Your task to perform on an android device: toggle notifications settings in the gmail app Image 0: 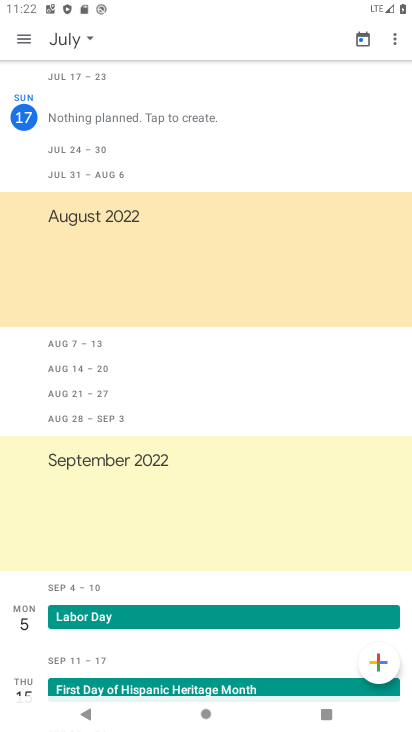
Step 0: press home button
Your task to perform on an android device: toggle notifications settings in the gmail app Image 1: 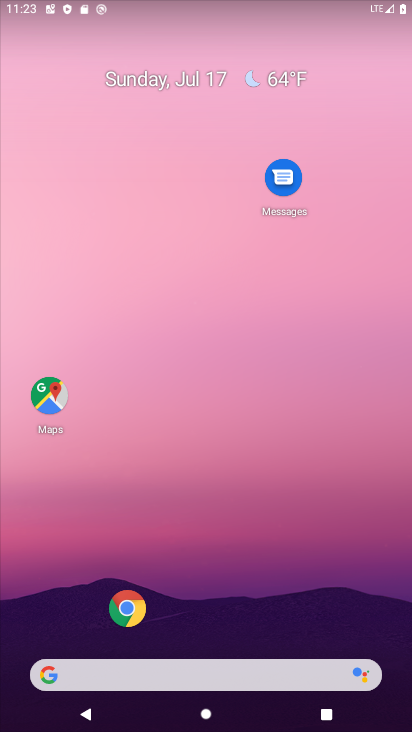
Step 1: drag from (21, 696) to (211, 141)
Your task to perform on an android device: toggle notifications settings in the gmail app Image 2: 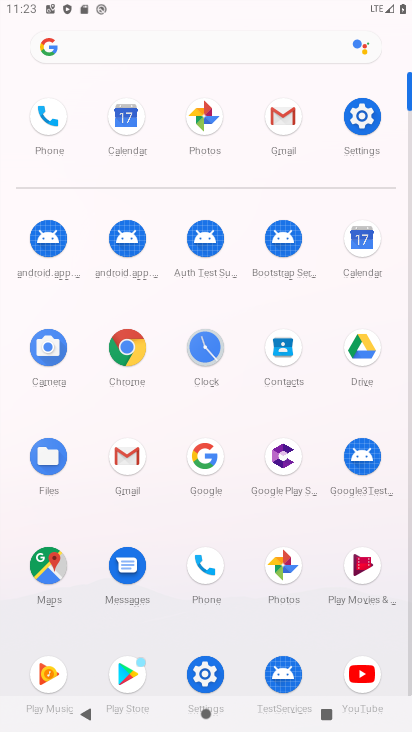
Step 2: click (130, 452)
Your task to perform on an android device: toggle notifications settings in the gmail app Image 3: 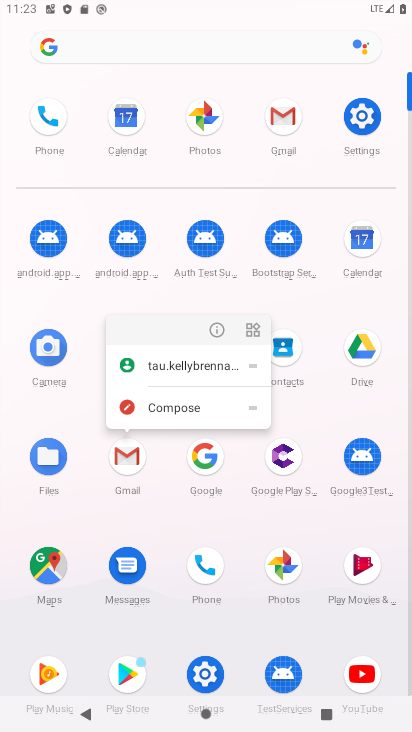
Step 3: click (117, 461)
Your task to perform on an android device: toggle notifications settings in the gmail app Image 4: 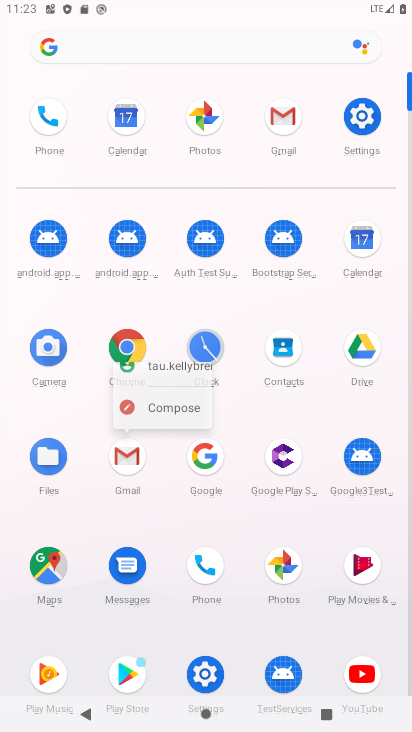
Step 4: click (117, 461)
Your task to perform on an android device: toggle notifications settings in the gmail app Image 5: 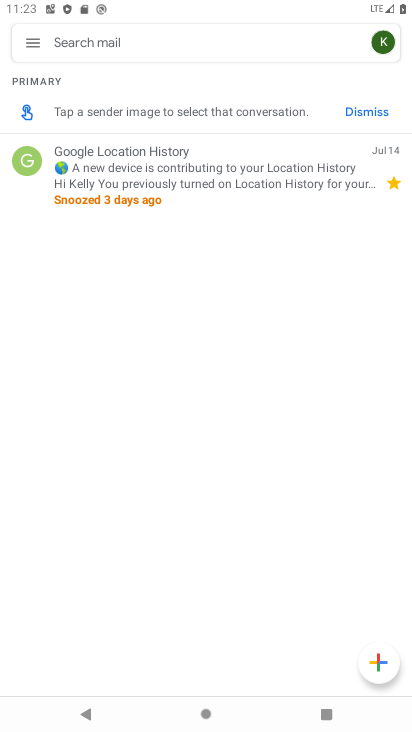
Step 5: click (36, 41)
Your task to perform on an android device: toggle notifications settings in the gmail app Image 6: 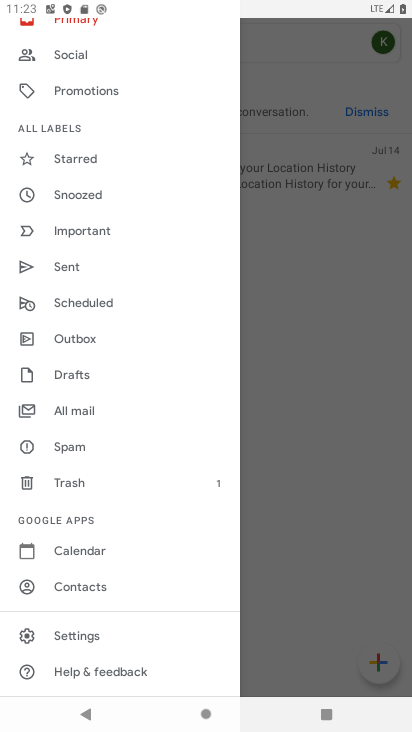
Step 6: click (68, 640)
Your task to perform on an android device: toggle notifications settings in the gmail app Image 7: 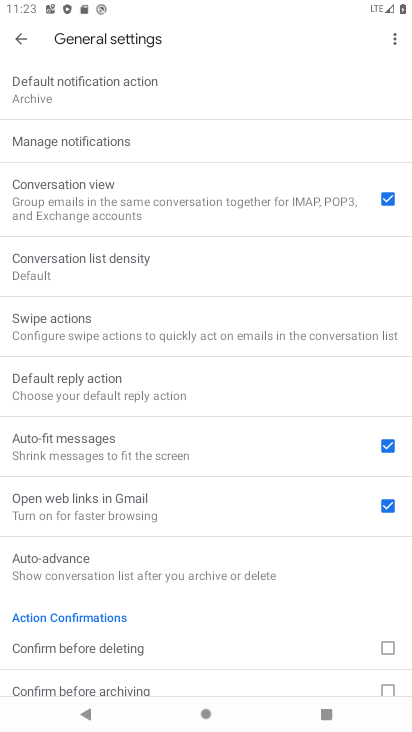
Step 7: click (48, 143)
Your task to perform on an android device: toggle notifications settings in the gmail app Image 8: 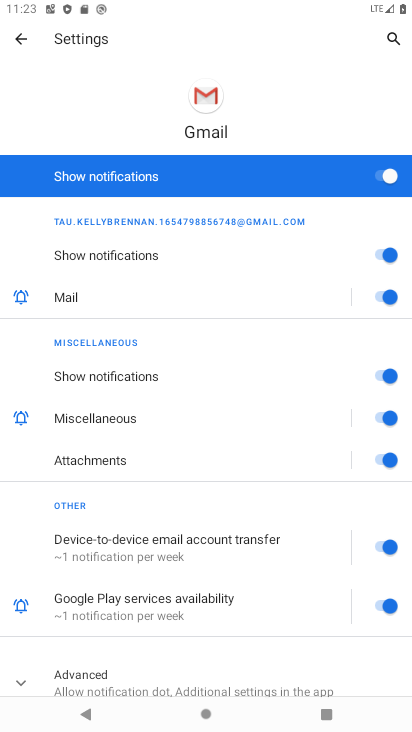
Step 8: task complete